Your task to perform on an android device: Open CNN.com Image 0: 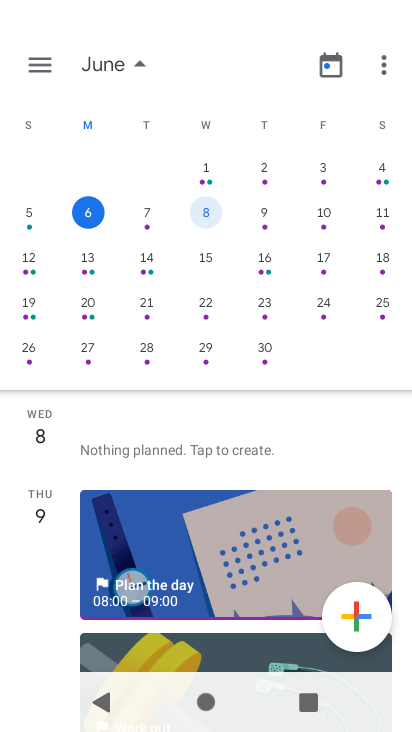
Step 0: press home button
Your task to perform on an android device: Open CNN.com Image 1: 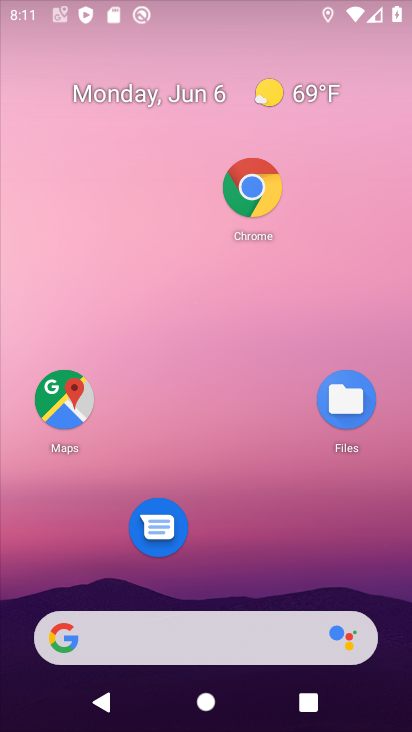
Step 1: drag from (228, 559) to (165, 110)
Your task to perform on an android device: Open CNN.com Image 2: 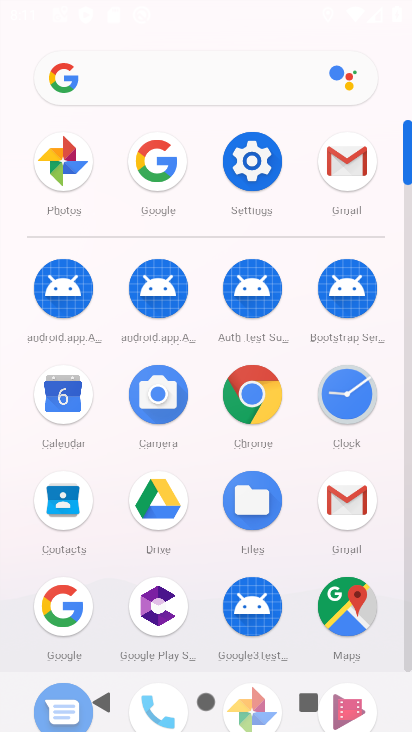
Step 2: click (154, 167)
Your task to perform on an android device: Open CNN.com Image 3: 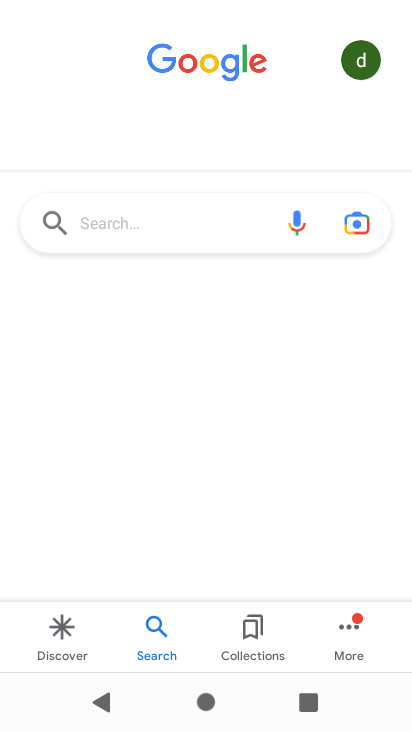
Step 3: click (151, 237)
Your task to perform on an android device: Open CNN.com Image 4: 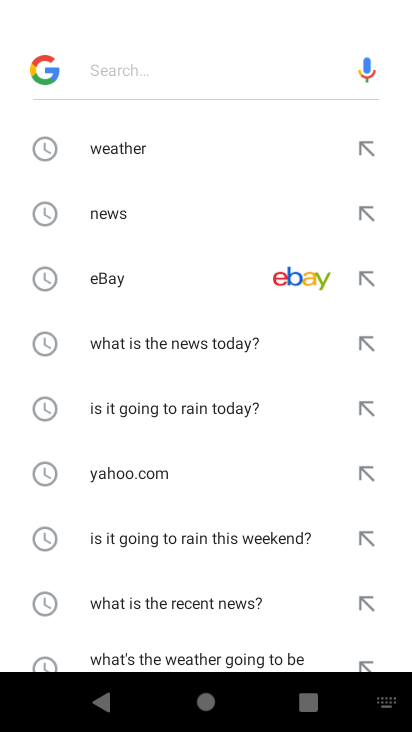
Step 4: drag from (214, 541) to (186, 211)
Your task to perform on an android device: Open CNN.com Image 5: 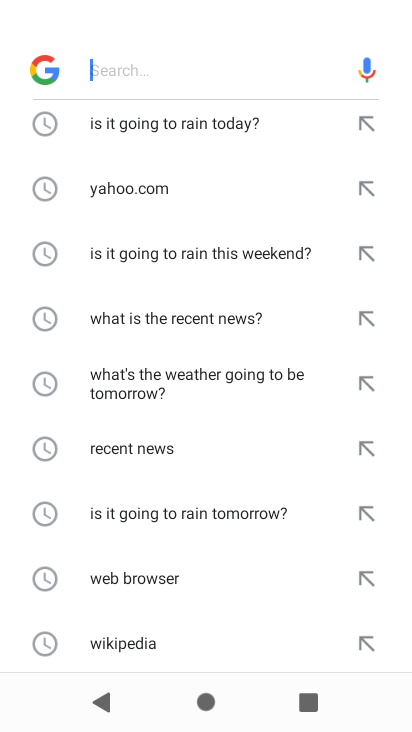
Step 5: drag from (233, 573) to (187, 187)
Your task to perform on an android device: Open CNN.com Image 6: 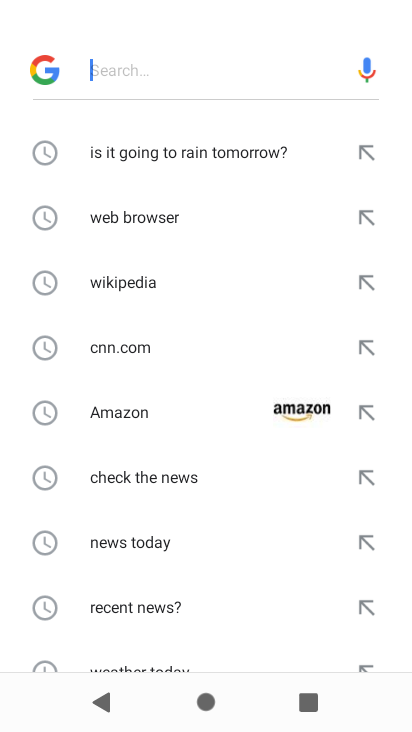
Step 6: click (187, 353)
Your task to perform on an android device: Open CNN.com Image 7: 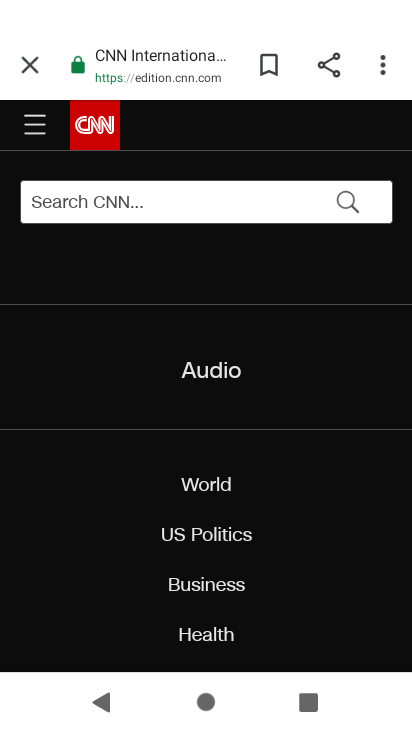
Step 7: task complete